Your task to perform on an android device: Go to Amazon Image 0: 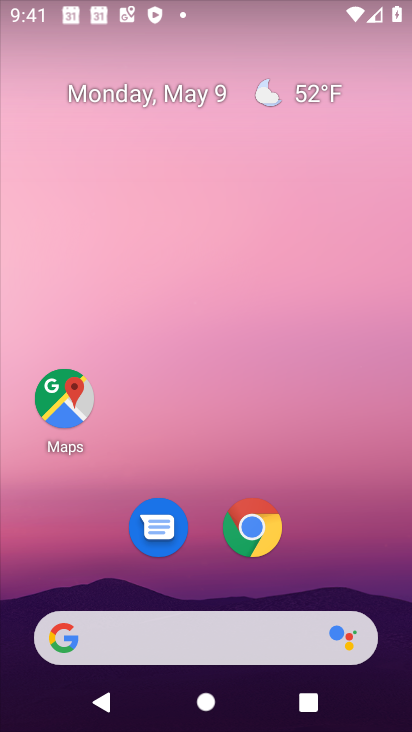
Step 0: click (253, 525)
Your task to perform on an android device: Go to Amazon Image 1: 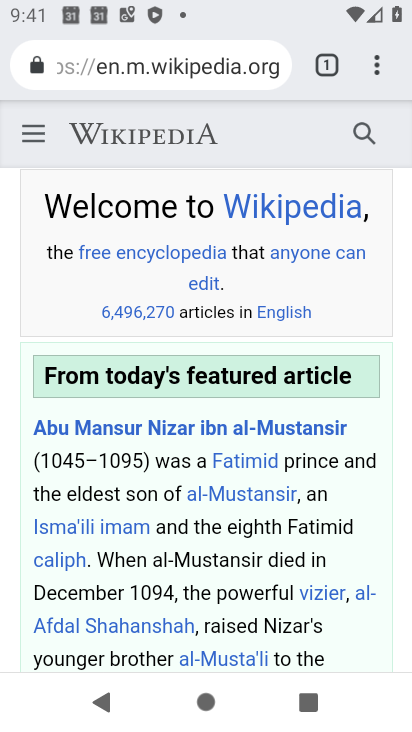
Step 1: press back button
Your task to perform on an android device: Go to Amazon Image 2: 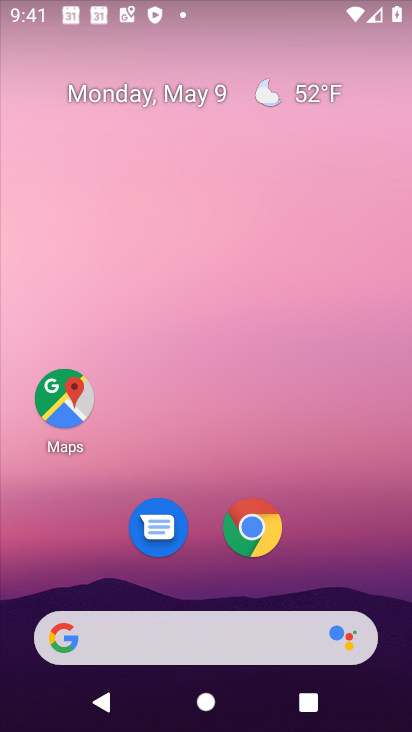
Step 2: click (259, 522)
Your task to perform on an android device: Go to Amazon Image 3: 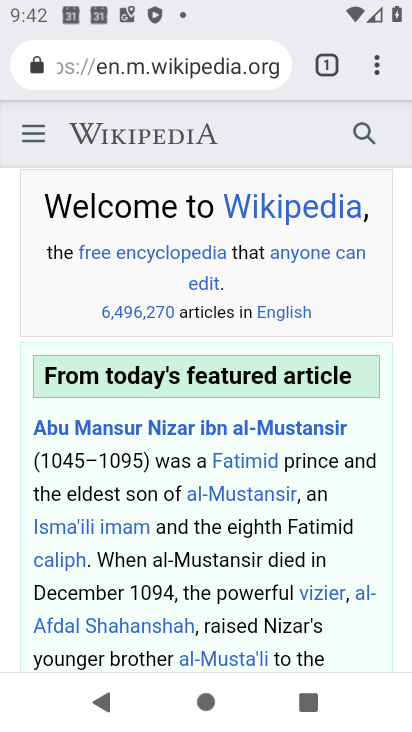
Step 3: click (258, 71)
Your task to perform on an android device: Go to Amazon Image 4: 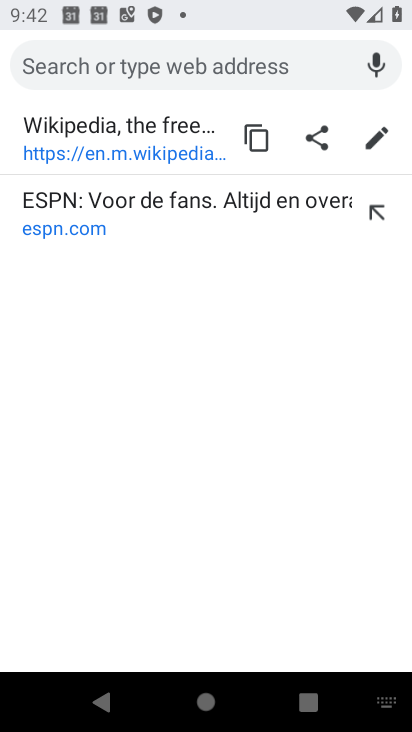
Step 4: type "amazon.com"
Your task to perform on an android device: Go to Amazon Image 5: 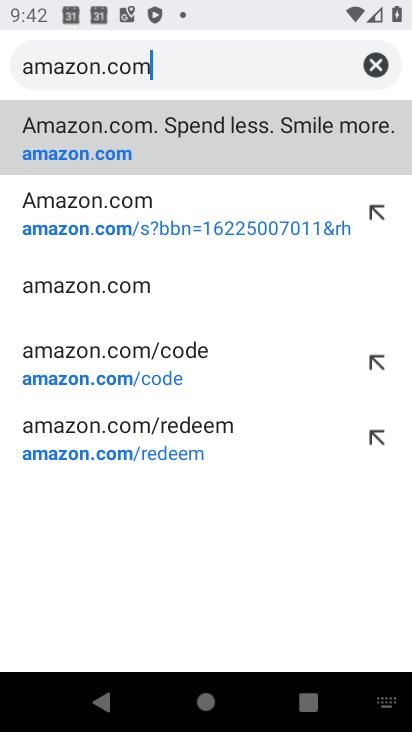
Step 5: click (122, 210)
Your task to perform on an android device: Go to Amazon Image 6: 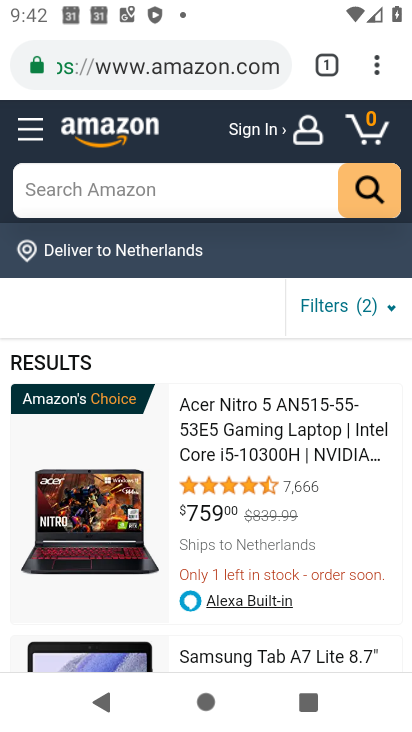
Step 6: task complete